Your task to perform on an android device: toggle wifi Image 0: 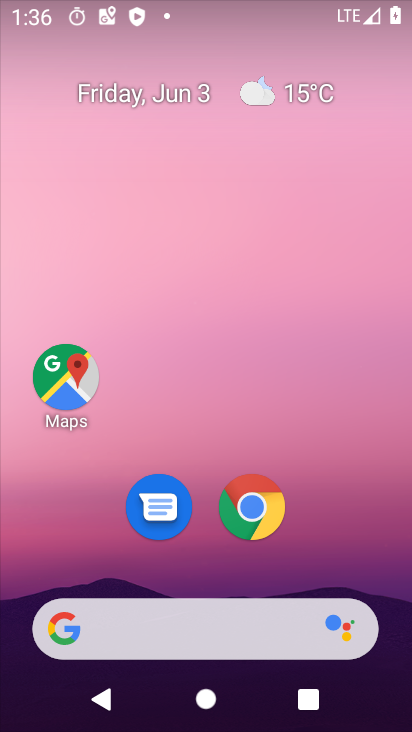
Step 0: drag from (190, 8) to (231, 449)
Your task to perform on an android device: toggle wifi Image 1: 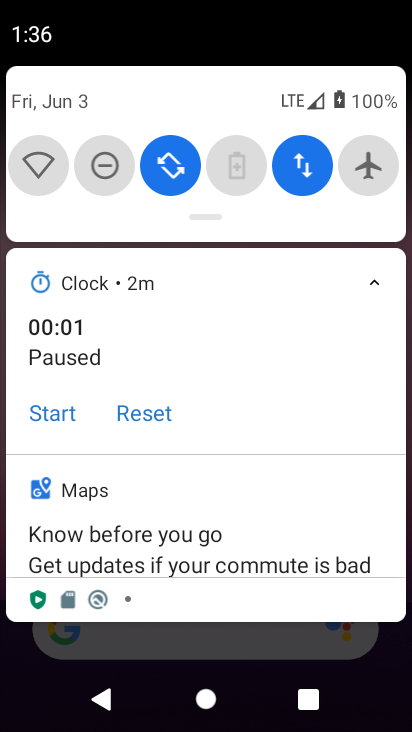
Step 1: click (42, 164)
Your task to perform on an android device: toggle wifi Image 2: 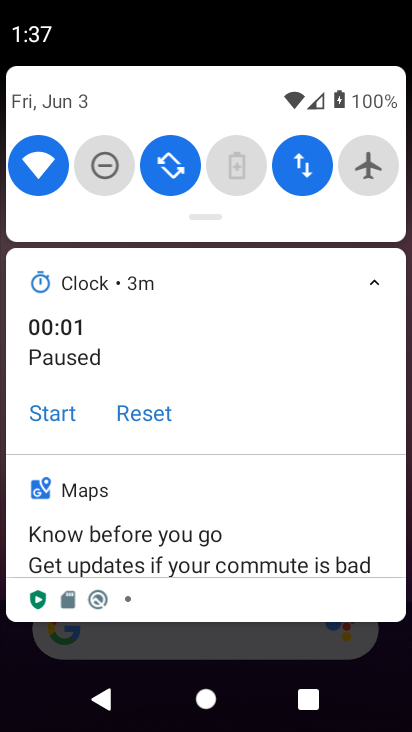
Step 2: task complete